Your task to perform on an android device: turn on location history Image 0: 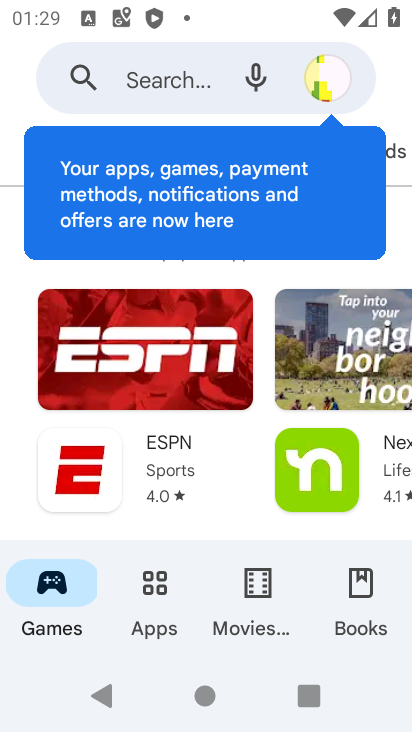
Step 0: press home button
Your task to perform on an android device: turn on location history Image 1: 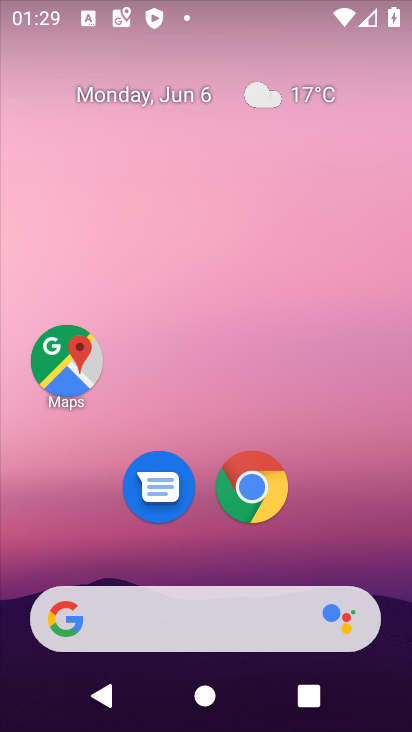
Step 1: click (60, 360)
Your task to perform on an android device: turn on location history Image 2: 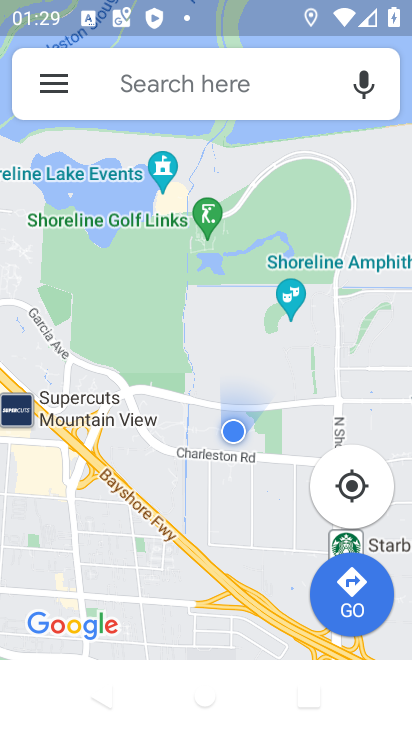
Step 2: click (54, 83)
Your task to perform on an android device: turn on location history Image 3: 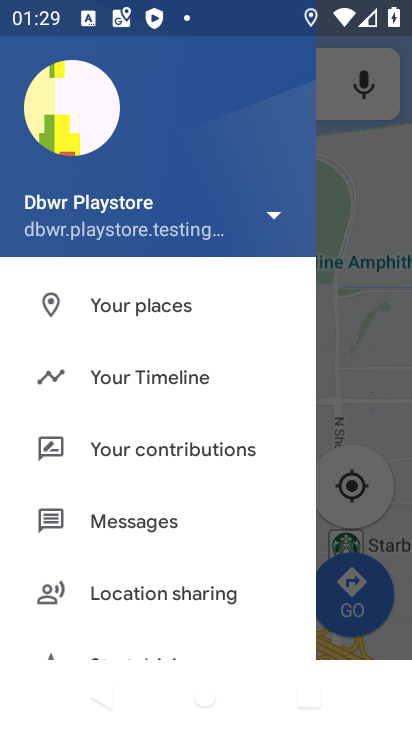
Step 3: drag from (223, 572) to (206, 224)
Your task to perform on an android device: turn on location history Image 4: 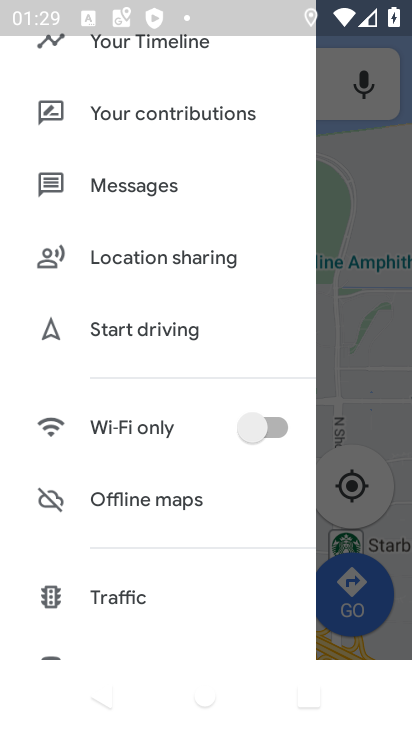
Step 4: drag from (215, 570) to (203, 110)
Your task to perform on an android device: turn on location history Image 5: 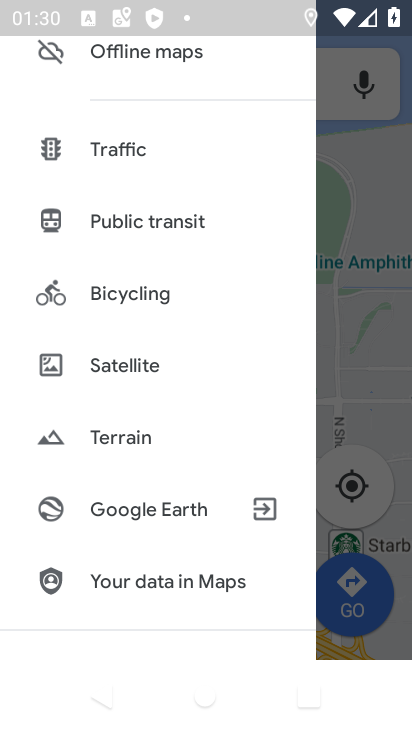
Step 5: drag from (207, 480) to (187, 108)
Your task to perform on an android device: turn on location history Image 6: 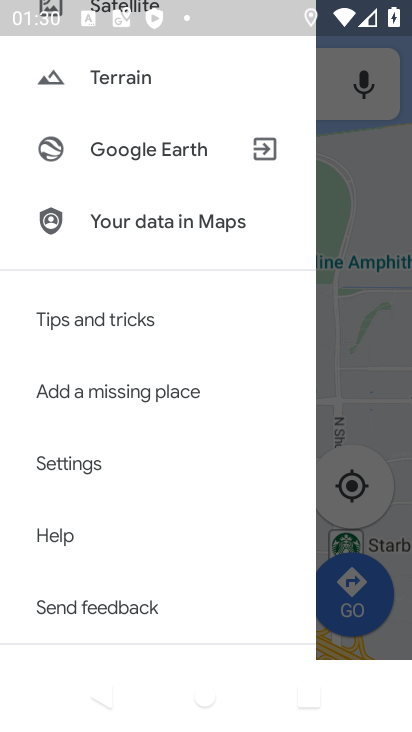
Step 6: click (85, 469)
Your task to perform on an android device: turn on location history Image 7: 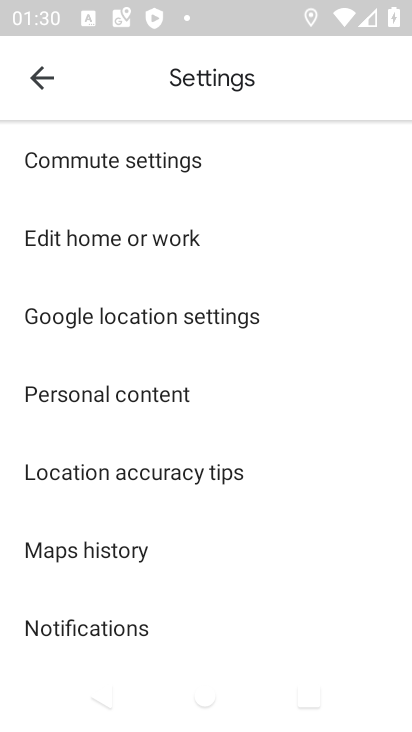
Step 7: click (113, 405)
Your task to perform on an android device: turn on location history Image 8: 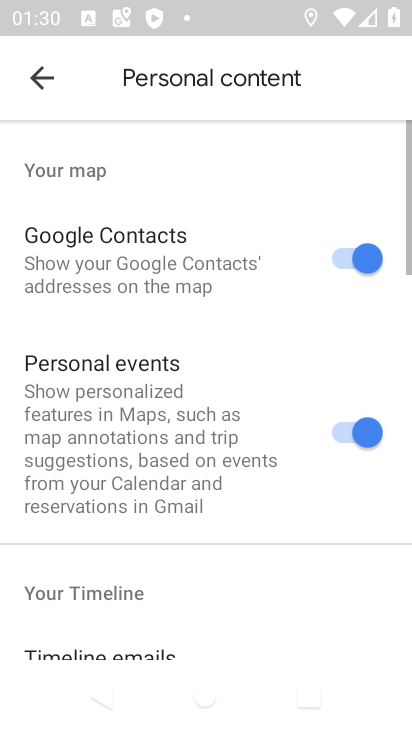
Step 8: drag from (307, 650) to (280, 151)
Your task to perform on an android device: turn on location history Image 9: 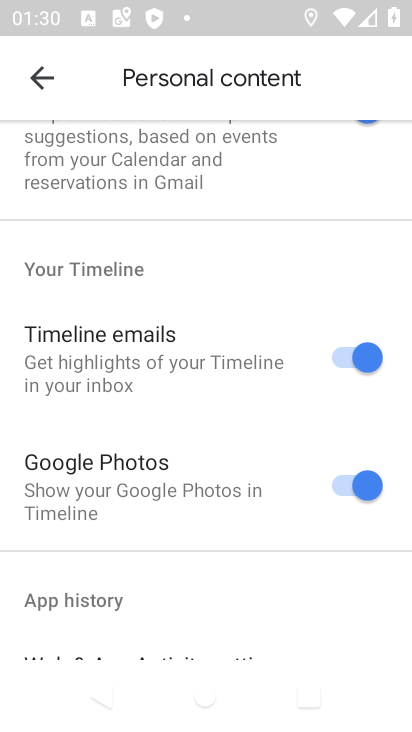
Step 9: drag from (232, 586) to (243, 152)
Your task to perform on an android device: turn on location history Image 10: 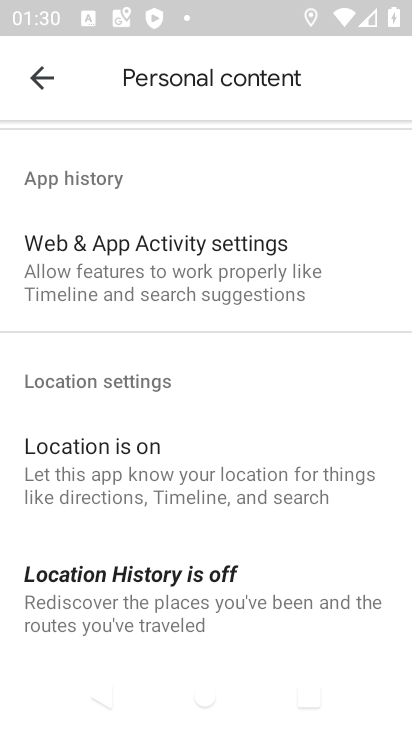
Step 10: drag from (232, 549) to (222, 281)
Your task to perform on an android device: turn on location history Image 11: 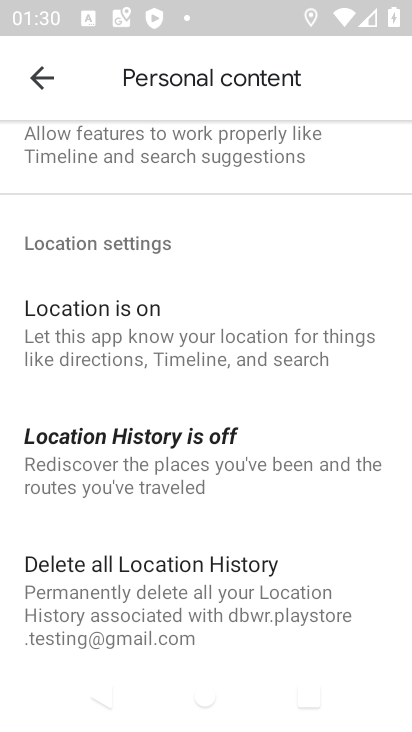
Step 11: click (103, 444)
Your task to perform on an android device: turn on location history Image 12: 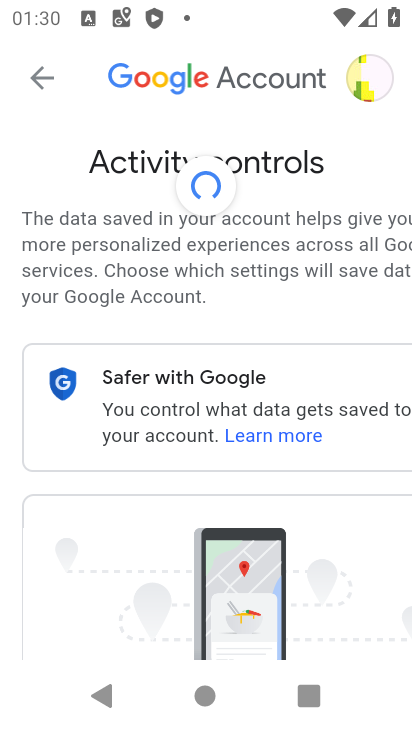
Step 12: task complete